Your task to perform on an android device: Show me productivity apps on the Play Store Image 0: 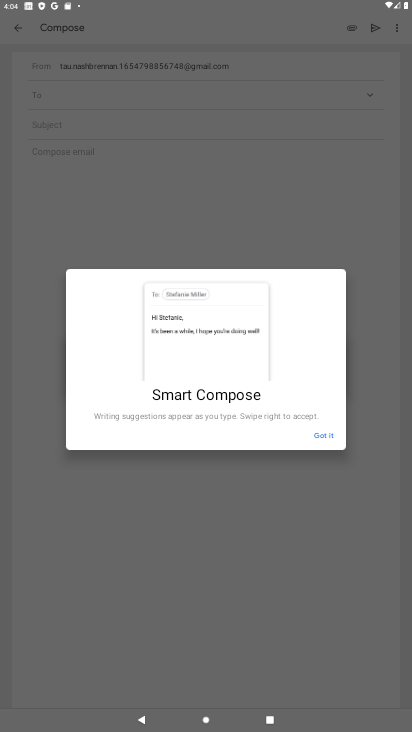
Step 0: press home button
Your task to perform on an android device: Show me productivity apps on the Play Store Image 1: 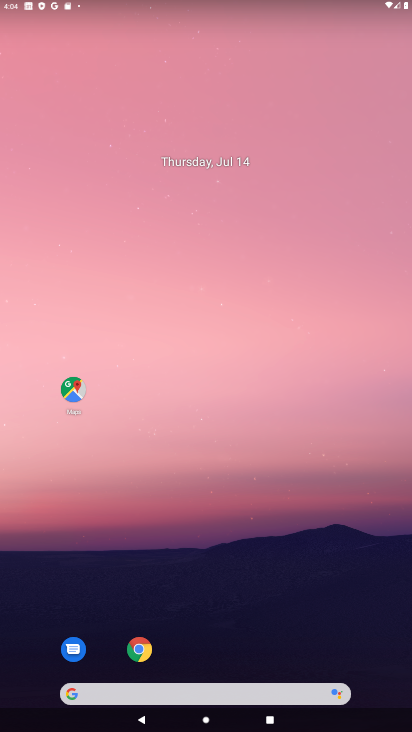
Step 1: drag from (188, 682) to (289, 149)
Your task to perform on an android device: Show me productivity apps on the Play Store Image 2: 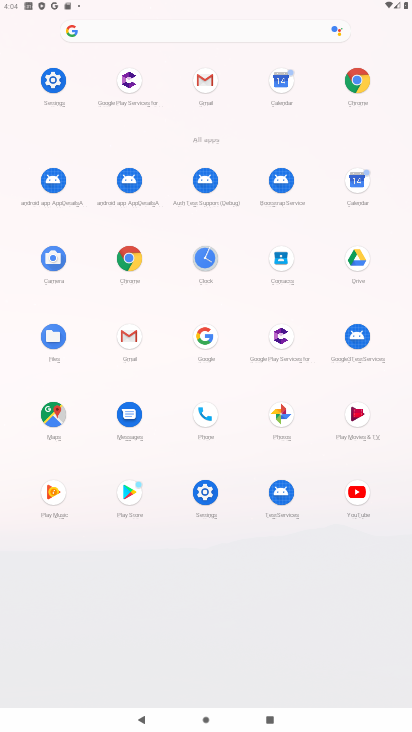
Step 2: click (130, 505)
Your task to perform on an android device: Show me productivity apps on the Play Store Image 3: 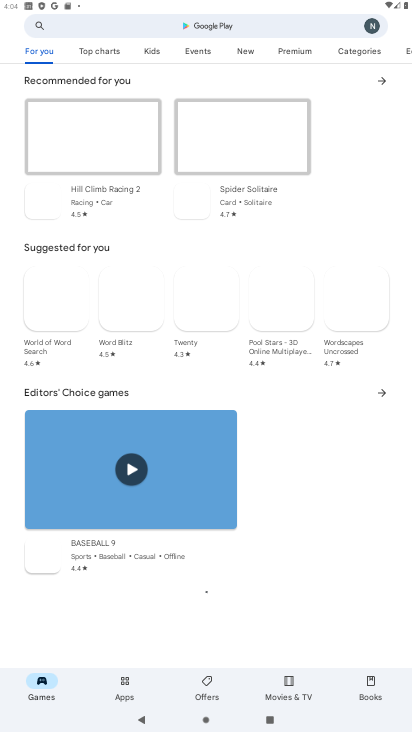
Step 3: click (141, 687)
Your task to perform on an android device: Show me productivity apps on the Play Store Image 4: 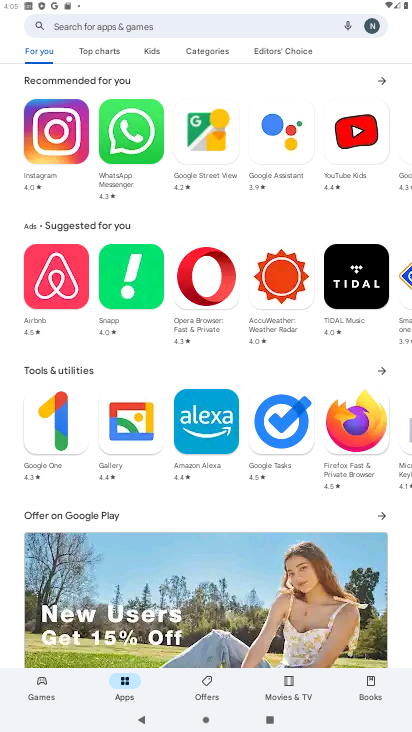
Step 4: click (203, 48)
Your task to perform on an android device: Show me productivity apps on the Play Store Image 5: 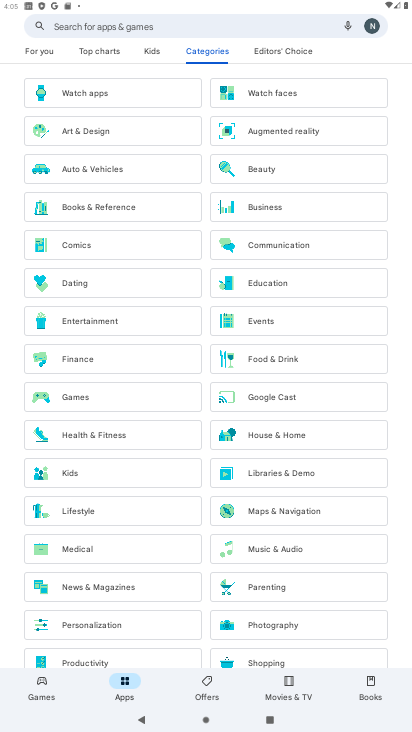
Step 5: drag from (139, 517) to (156, 328)
Your task to perform on an android device: Show me productivity apps on the Play Store Image 6: 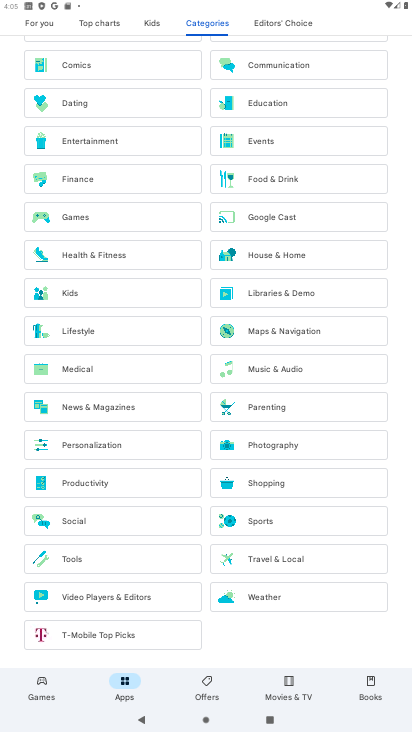
Step 6: click (108, 488)
Your task to perform on an android device: Show me productivity apps on the Play Store Image 7: 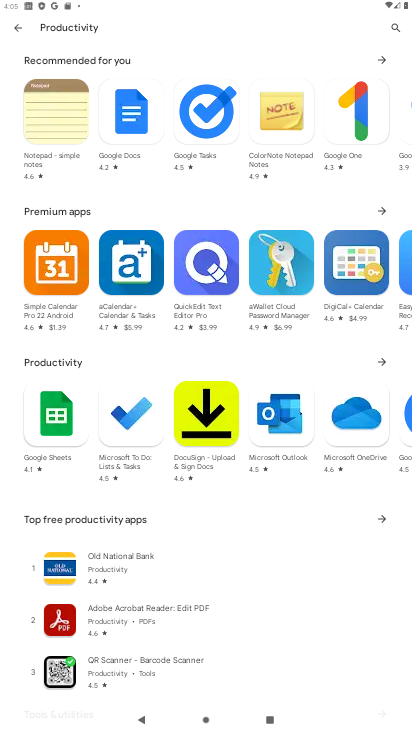
Step 7: task complete